Your task to perform on an android device: turn off priority inbox in the gmail app Image 0: 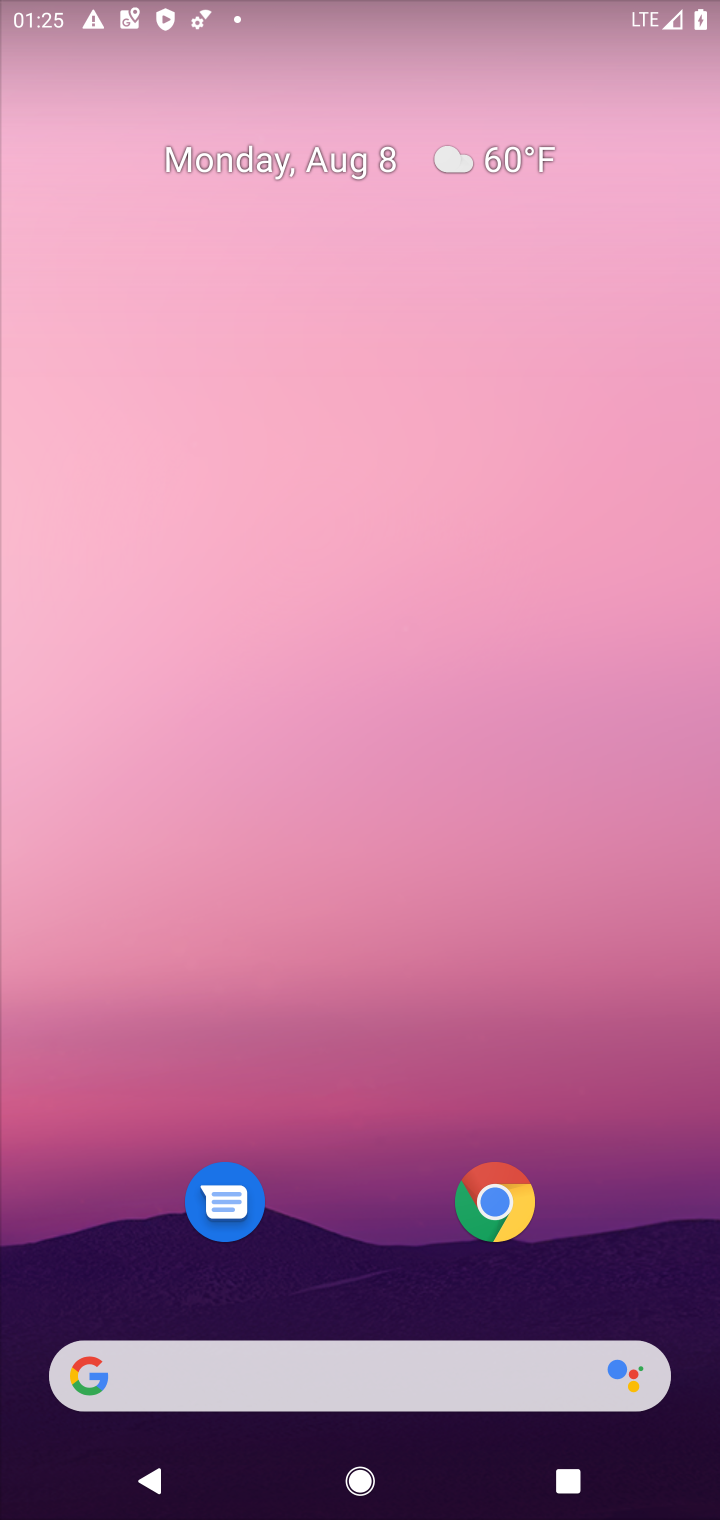
Step 0: drag from (238, 738) to (279, 16)
Your task to perform on an android device: turn off priority inbox in the gmail app Image 1: 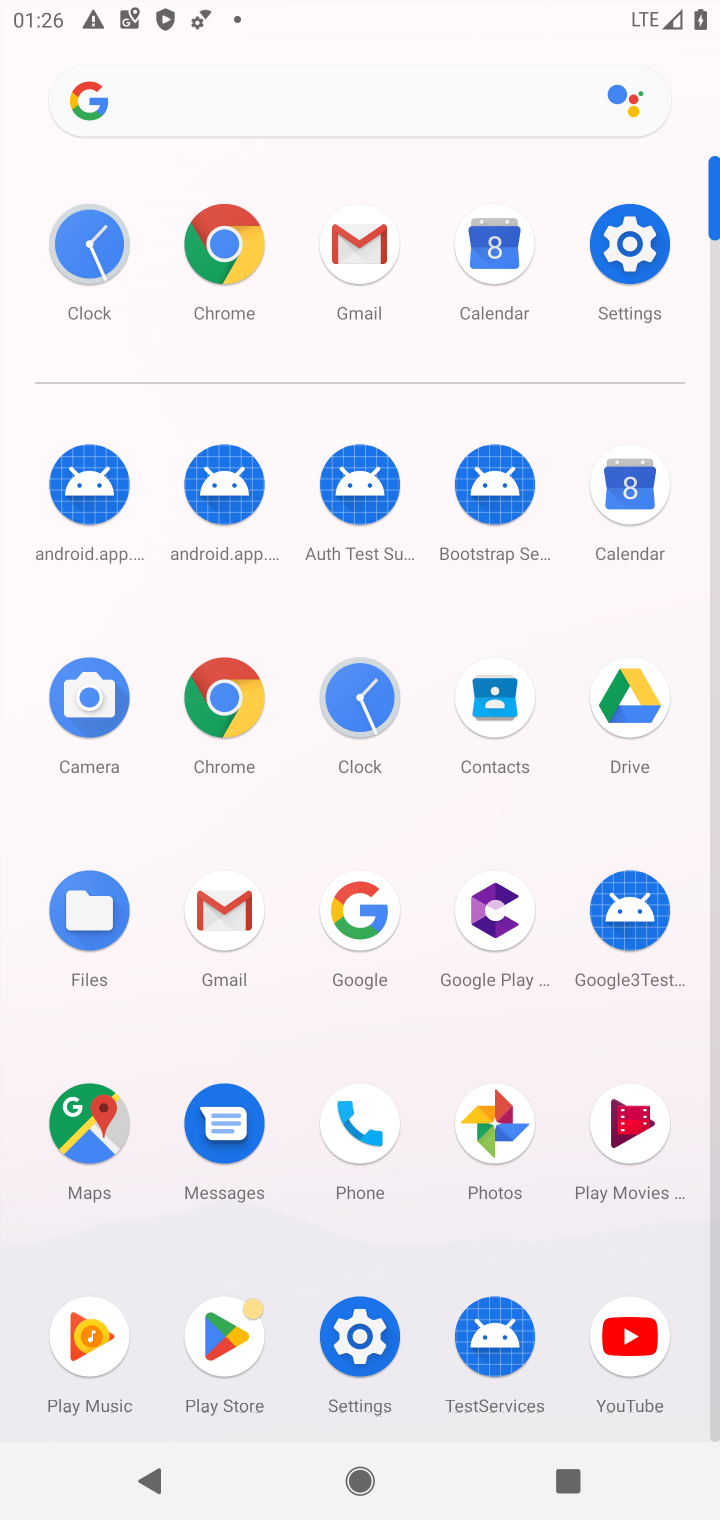
Step 1: click (353, 263)
Your task to perform on an android device: turn off priority inbox in the gmail app Image 2: 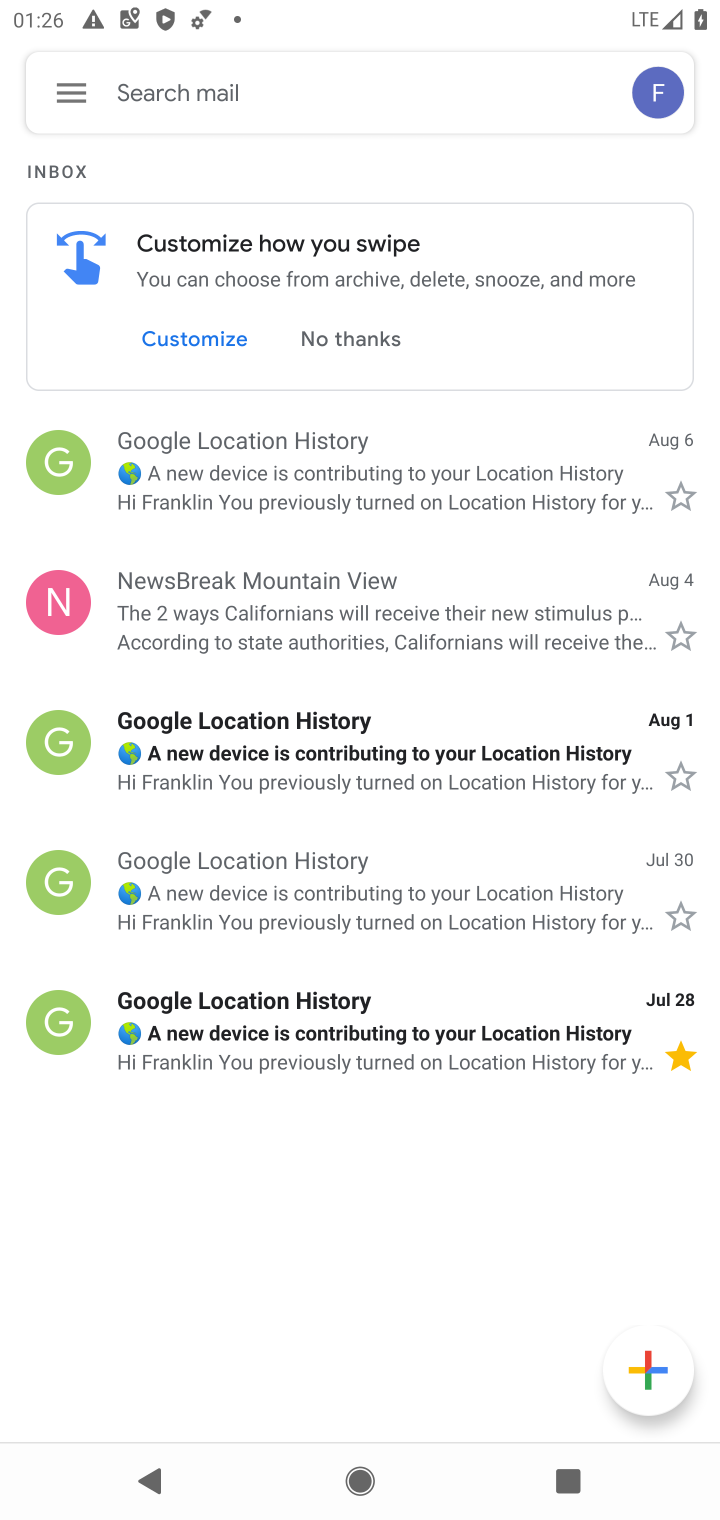
Step 2: click (69, 83)
Your task to perform on an android device: turn off priority inbox in the gmail app Image 3: 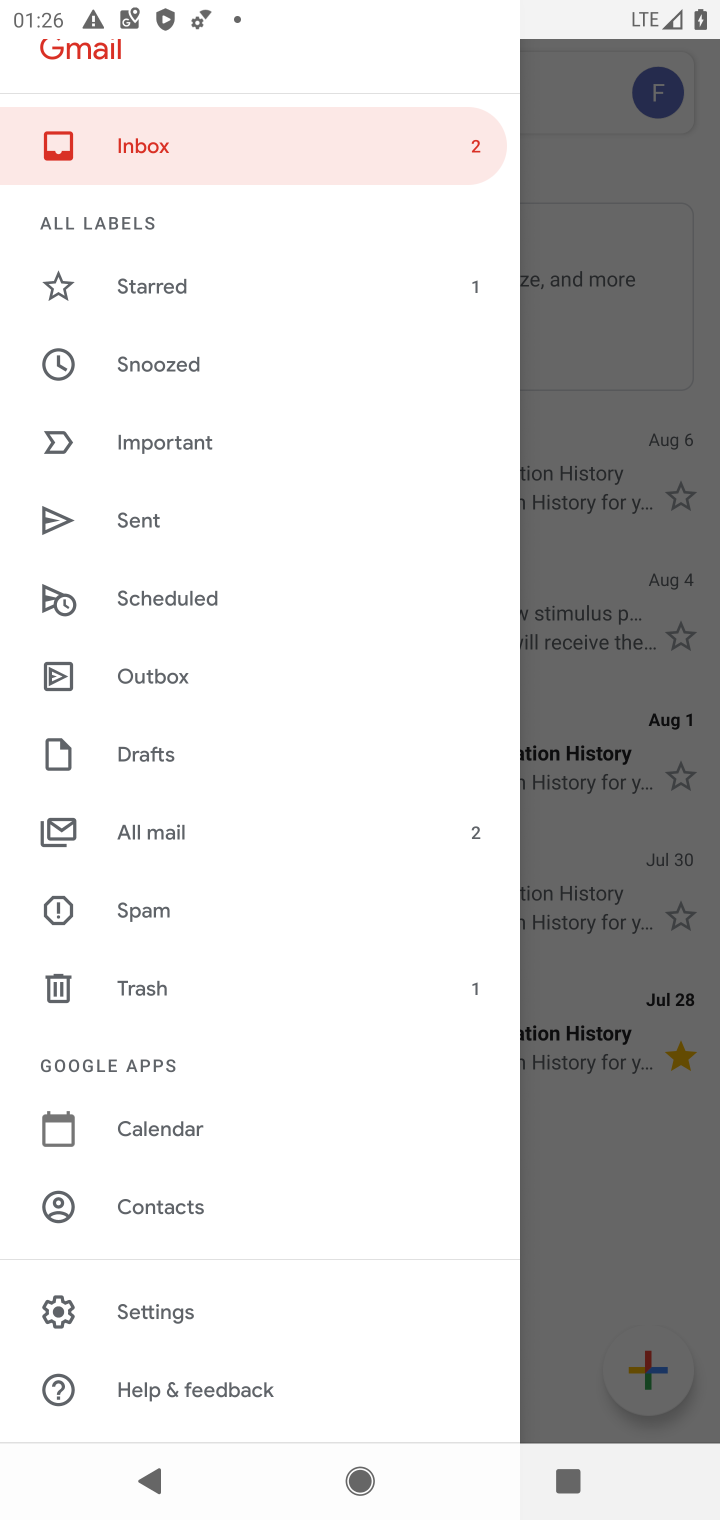
Step 3: click (149, 1307)
Your task to perform on an android device: turn off priority inbox in the gmail app Image 4: 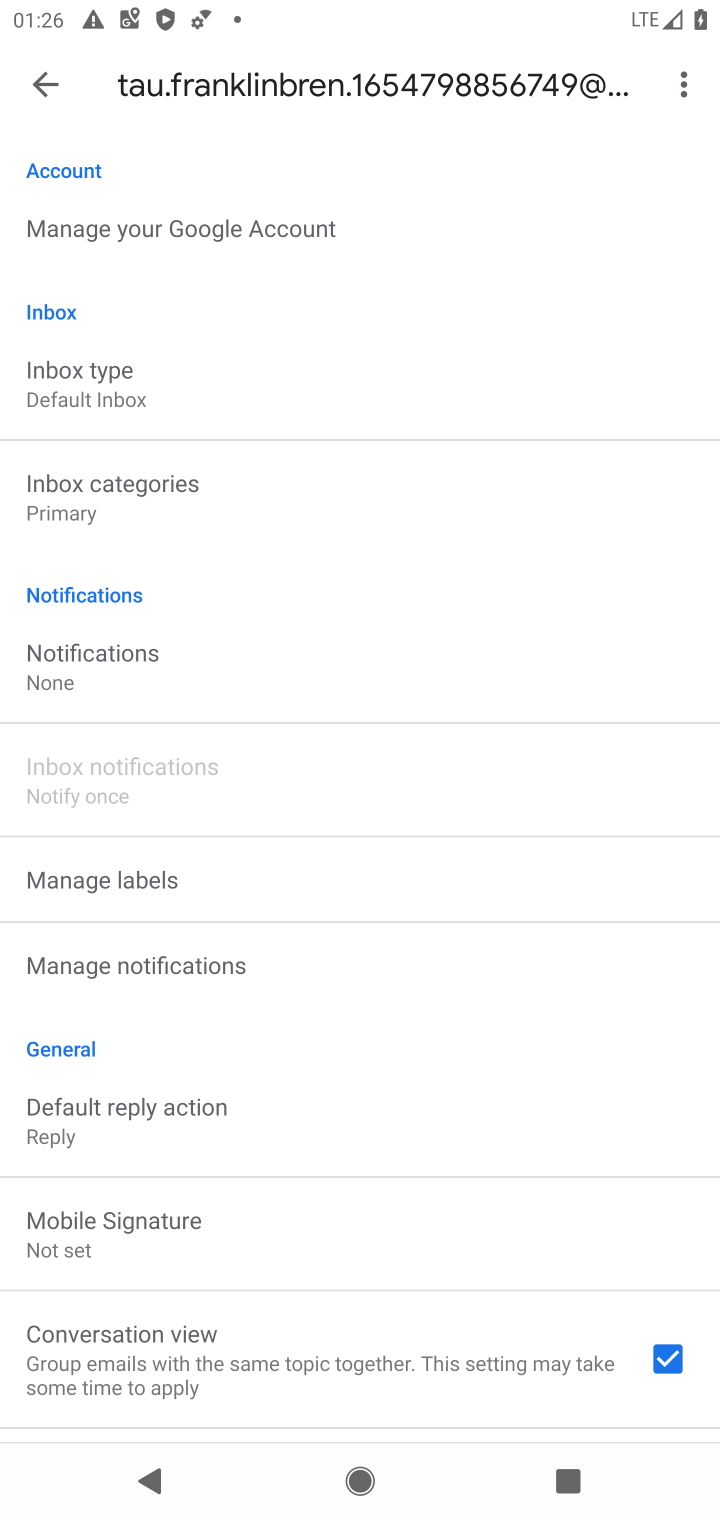
Step 4: click (92, 378)
Your task to perform on an android device: turn off priority inbox in the gmail app Image 5: 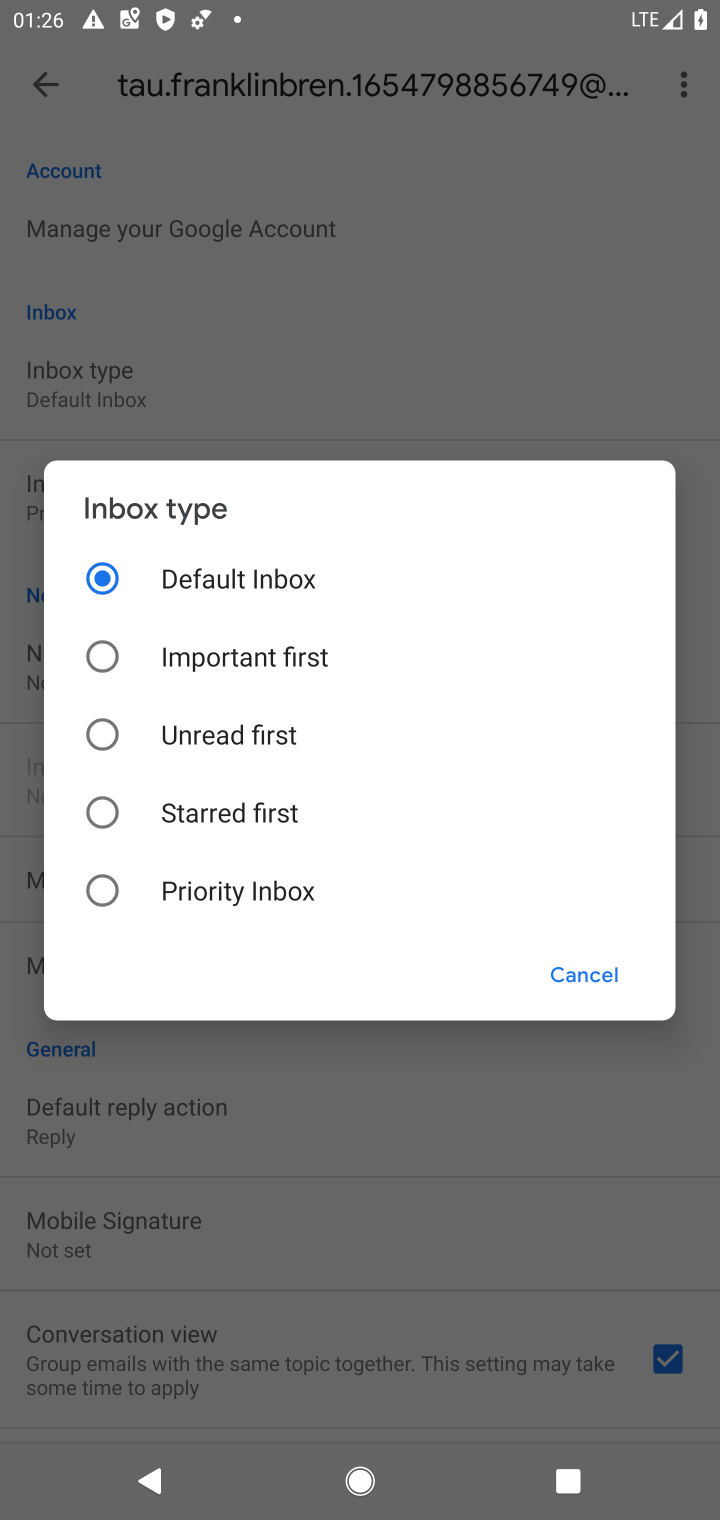
Step 5: task complete